Your task to perform on an android device: Show me popular videos on Youtube Image 0: 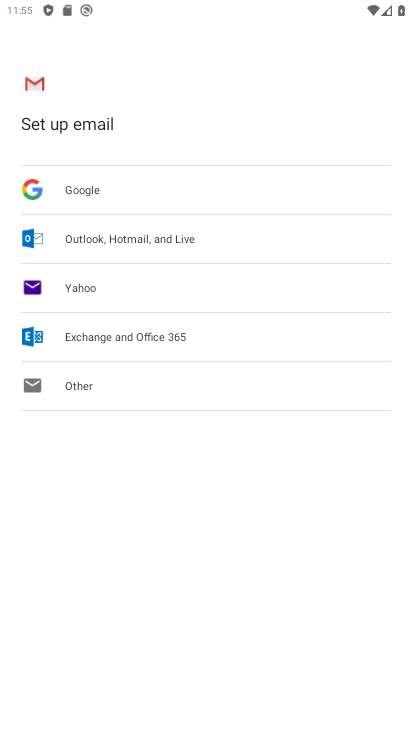
Step 0: press home button
Your task to perform on an android device: Show me popular videos on Youtube Image 1: 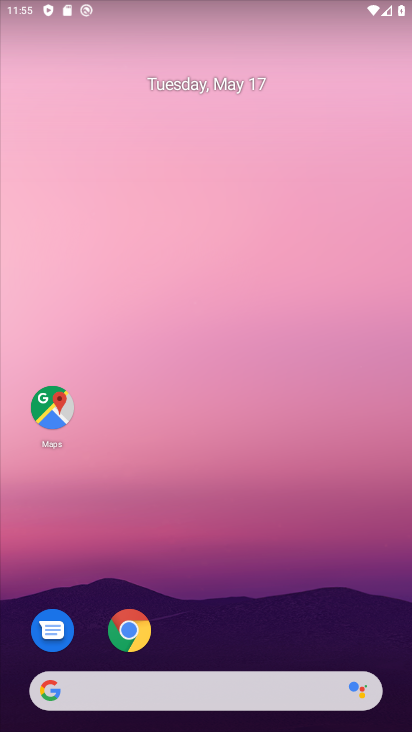
Step 1: drag from (272, 503) to (179, 7)
Your task to perform on an android device: Show me popular videos on Youtube Image 2: 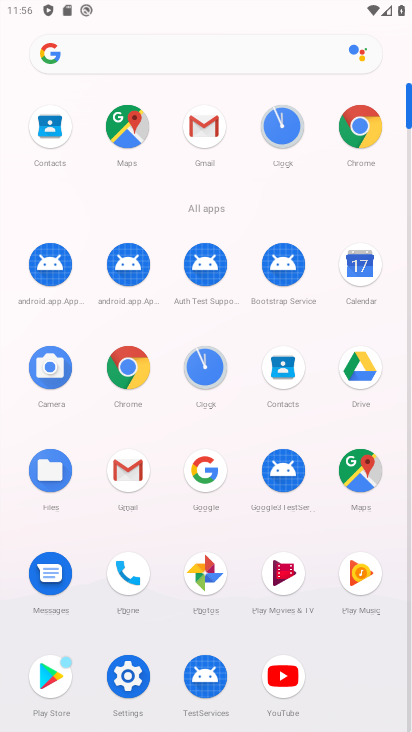
Step 2: click (285, 683)
Your task to perform on an android device: Show me popular videos on Youtube Image 3: 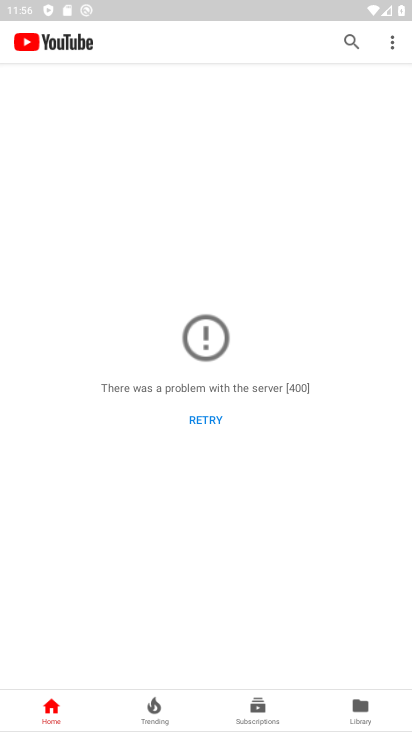
Step 3: click (211, 407)
Your task to perform on an android device: Show me popular videos on Youtube Image 4: 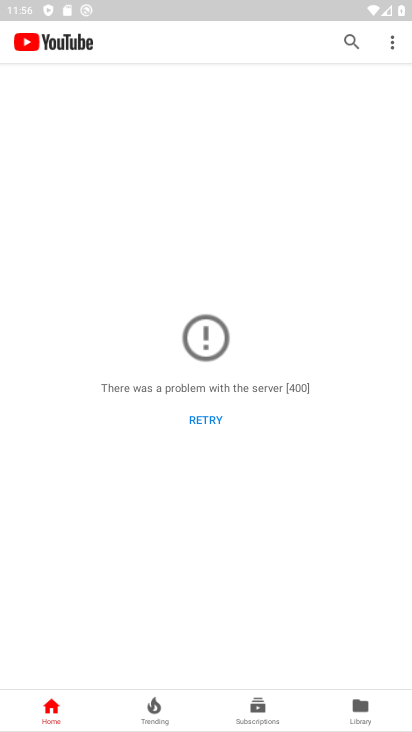
Step 4: click (210, 416)
Your task to perform on an android device: Show me popular videos on Youtube Image 5: 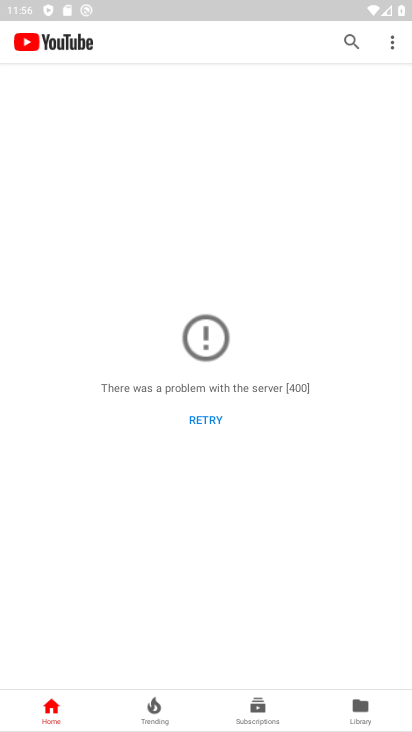
Step 5: click (200, 418)
Your task to perform on an android device: Show me popular videos on Youtube Image 6: 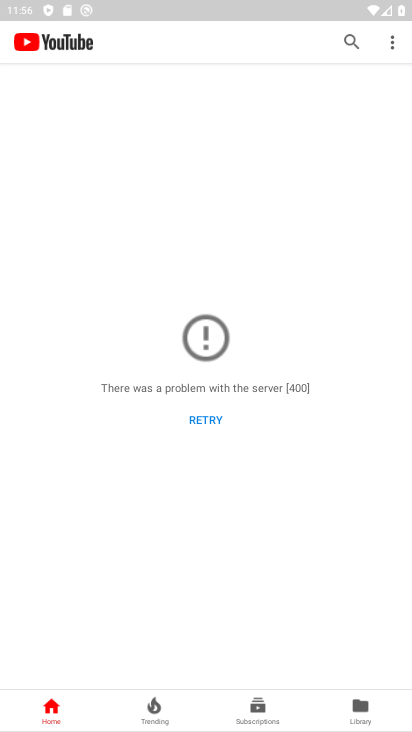
Step 6: click (201, 419)
Your task to perform on an android device: Show me popular videos on Youtube Image 7: 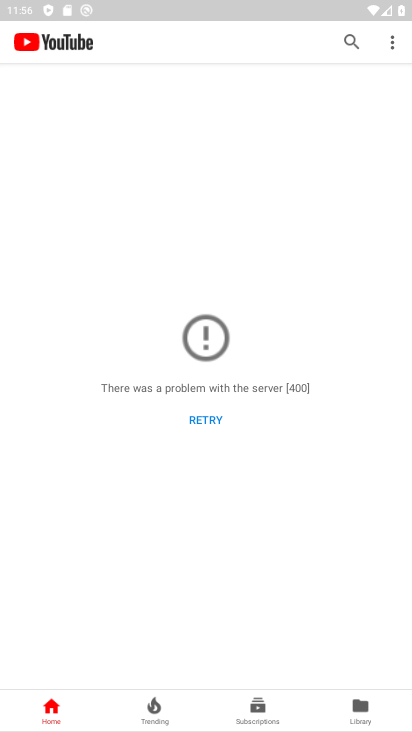
Step 7: click (204, 414)
Your task to perform on an android device: Show me popular videos on Youtube Image 8: 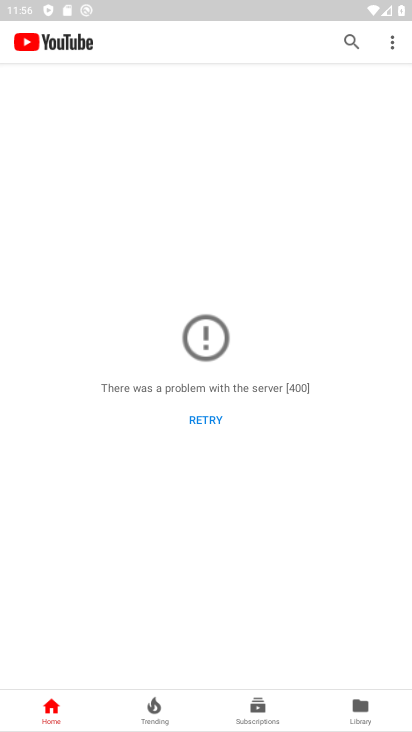
Step 8: click (204, 414)
Your task to perform on an android device: Show me popular videos on Youtube Image 9: 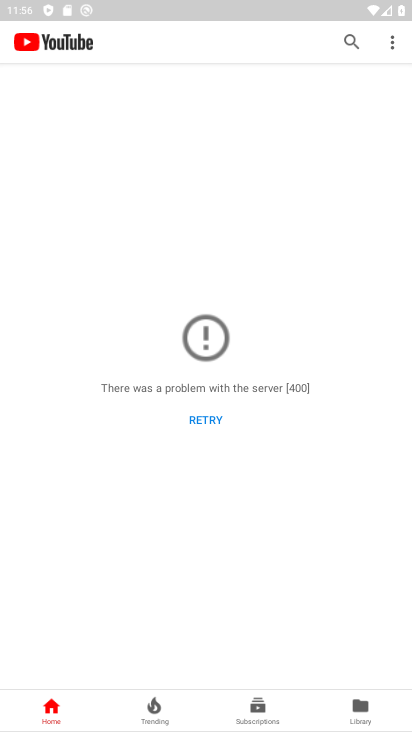
Step 9: click (205, 414)
Your task to perform on an android device: Show me popular videos on Youtube Image 10: 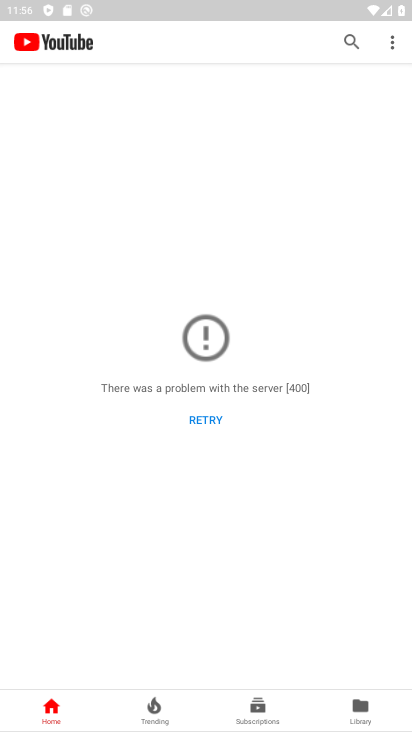
Step 10: task complete